Your task to perform on an android device: change the clock display to show seconds Image 0: 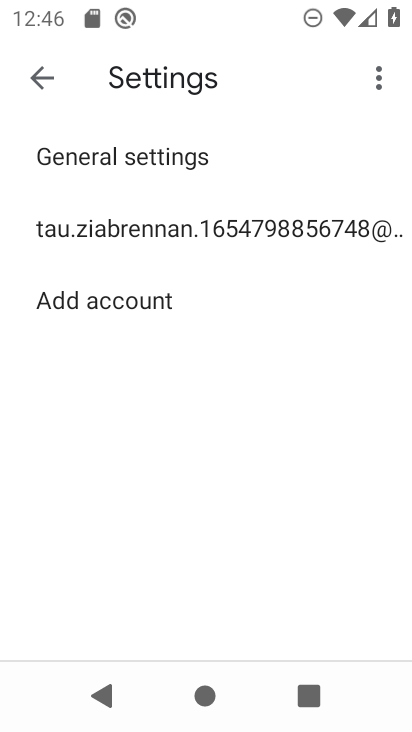
Step 0: press back button
Your task to perform on an android device: change the clock display to show seconds Image 1: 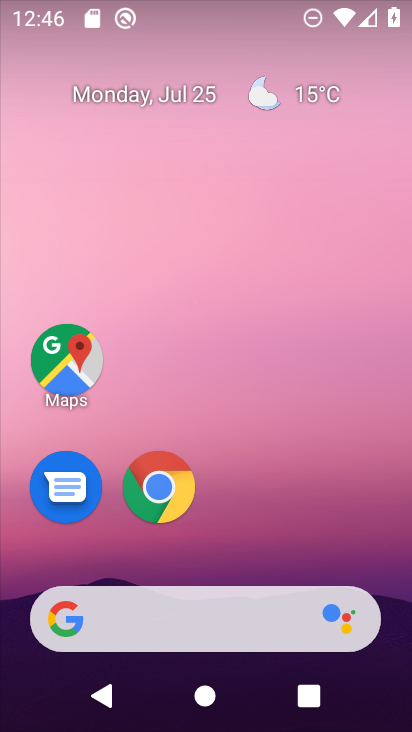
Step 1: drag from (241, 529) to (406, 96)
Your task to perform on an android device: change the clock display to show seconds Image 2: 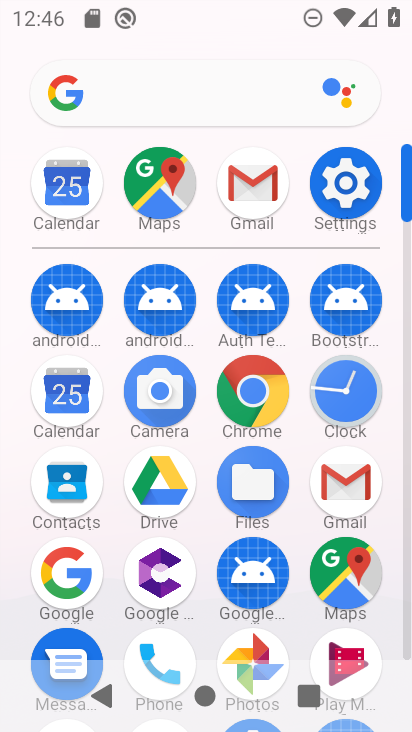
Step 2: click (353, 412)
Your task to perform on an android device: change the clock display to show seconds Image 3: 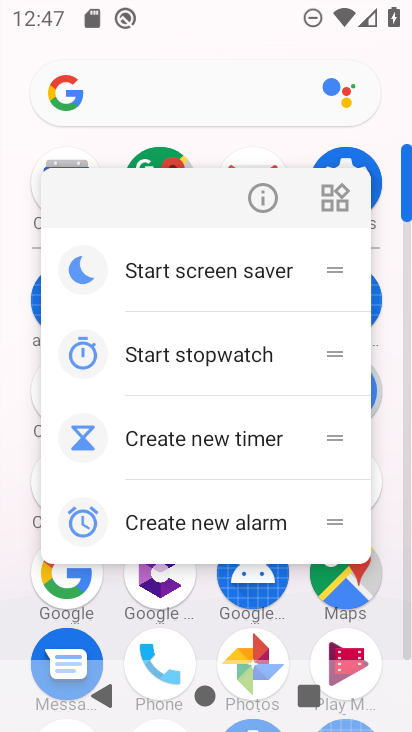
Step 3: click (180, 79)
Your task to perform on an android device: change the clock display to show seconds Image 4: 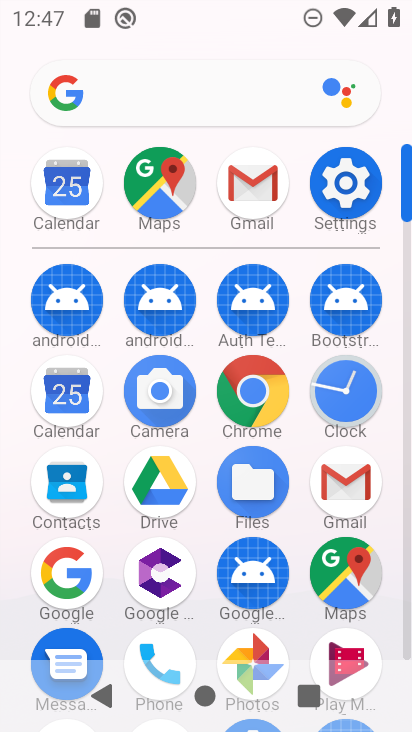
Step 4: click (358, 393)
Your task to perform on an android device: change the clock display to show seconds Image 5: 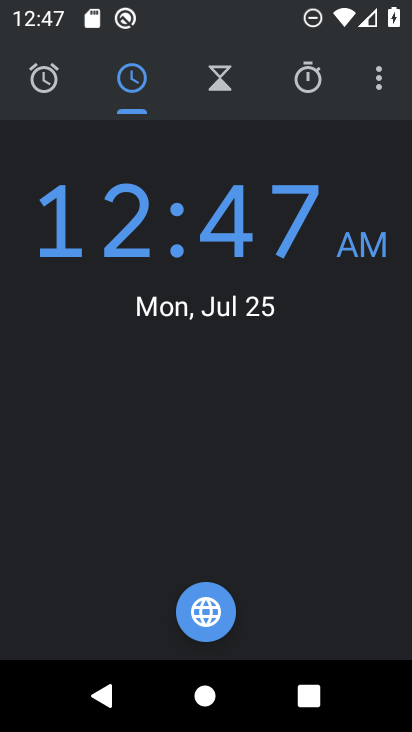
Step 5: click (379, 70)
Your task to perform on an android device: change the clock display to show seconds Image 6: 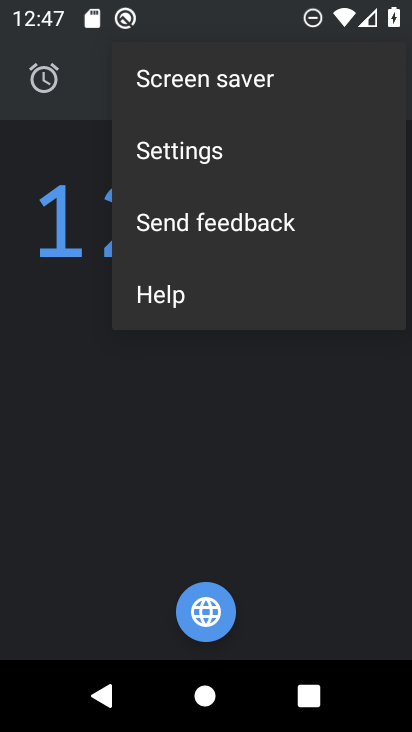
Step 6: click (229, 145)
Your task to perform on an android device: change the clock display to show seconds Image 7: 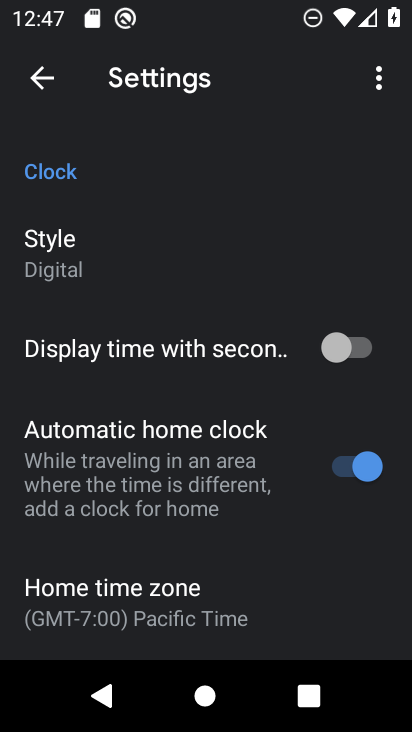
Step 7: click (377, 338)
Your task to perform on an android device: change the clock display to show seconds Image 8: 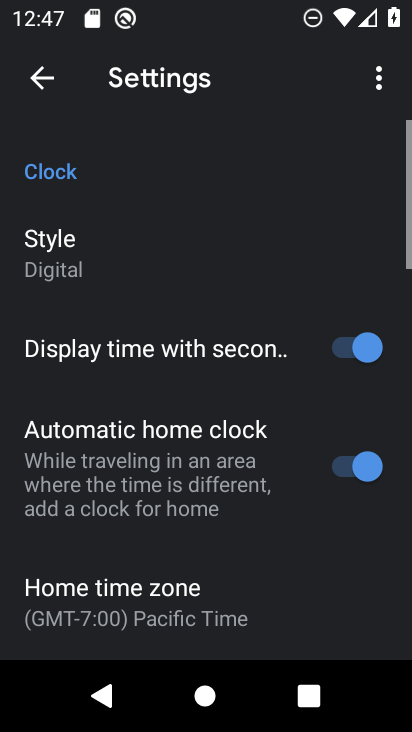
Step 8: task complete